Your task to perform on an android device: toggle wifi Image 0: 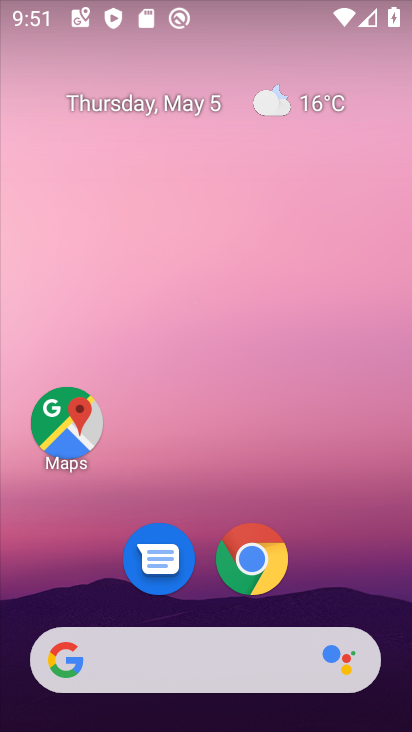
Step 0: drag from (210, 602) to (250, 107)
Your task to perform on an android device: toggle wifi Image 1: 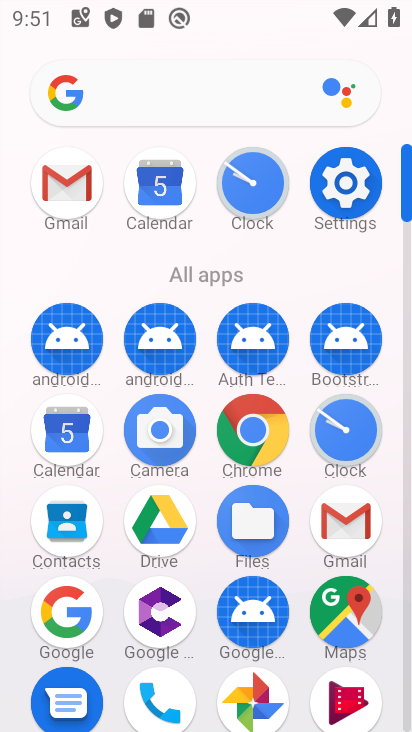
Step 1: click (361, 205)
Your task to perform on an android device: toggle wifi Image 2: 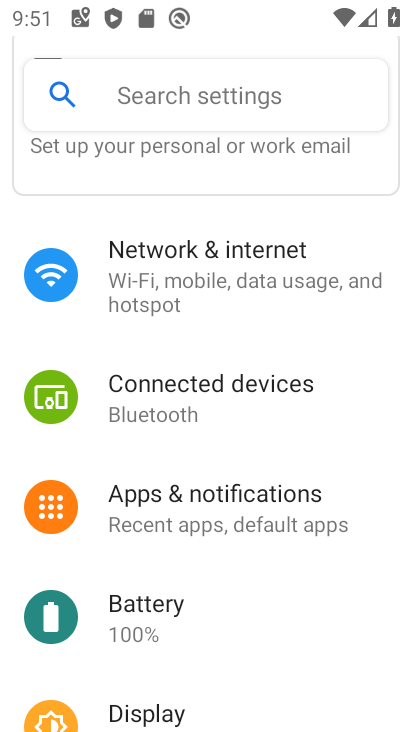
Step 2: drag from (221, 232) to (227, 571)
Your task to perform on an android device: toggle wifi Image 3: 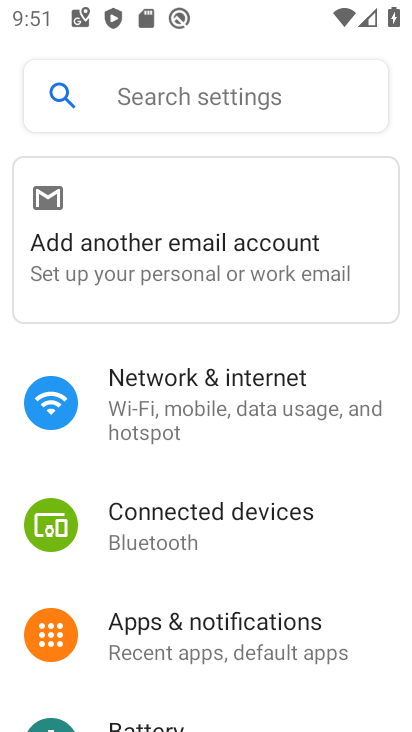
Step 3: click (196, 401)
Your task to perform on an android device: toggle wifi Image 4: 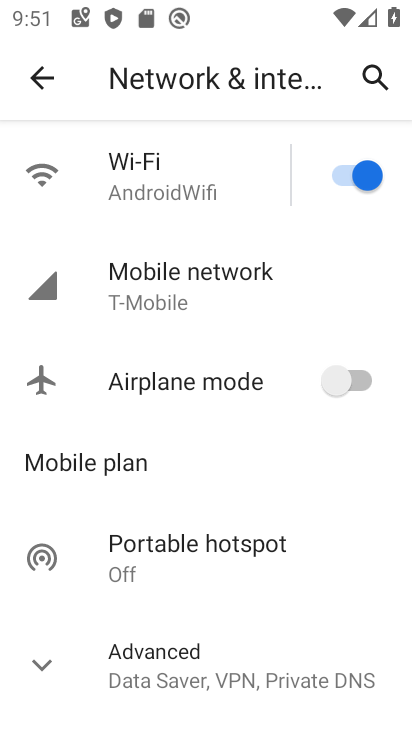
Step 4: click (349, 172)
Your task to perform on an android device: toggle wifi Image 5: 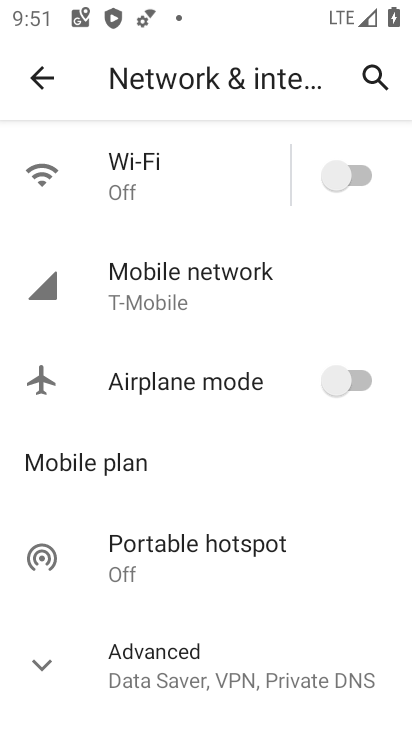
Step 5: task complete